Your task to perform on an android device: turn off data saver in the chrome app Image 0: 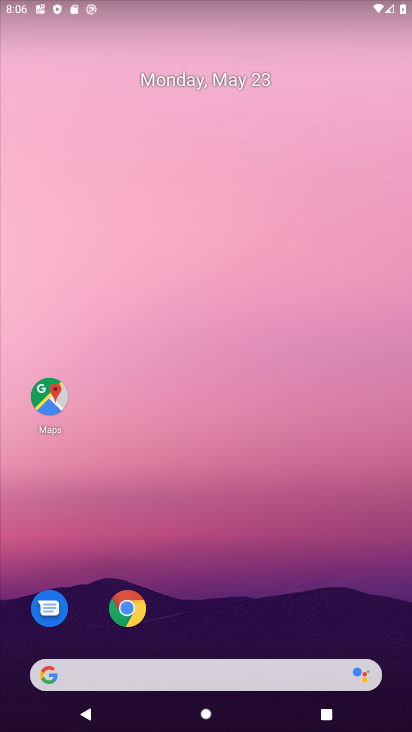
Step 0: click (135, 613)
Your task to perform on an android device: turn off data saver in the chrome app Image 1: 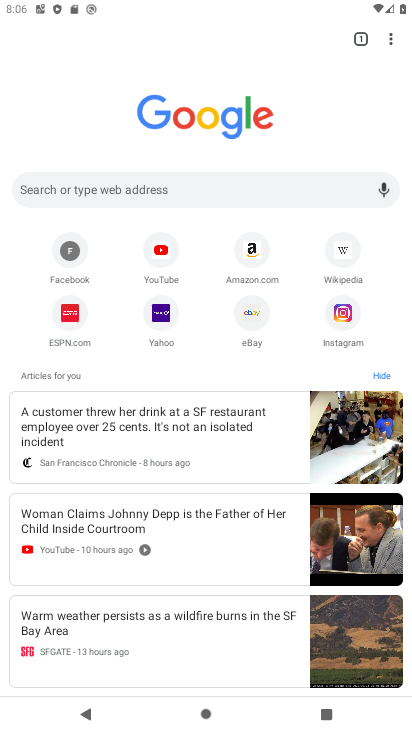
Step 1: drag from (386, 24) to (288, 150)
Your task to perform on an android device: turn off data saver in the chrome app Image 2: 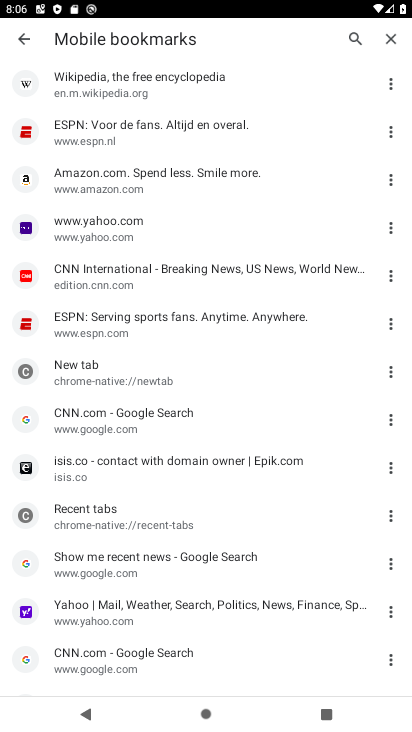
Step 2: click (391, 78)
Your task to perform on an android device: turn off data saver in the chrome app Image 3: 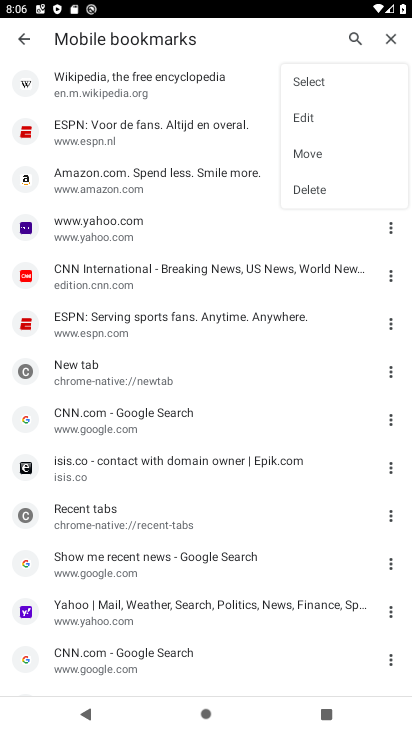
Step 3: click (316, 187)
Your task to perform on an android device: turn off data saver in the chrome app Image 4: 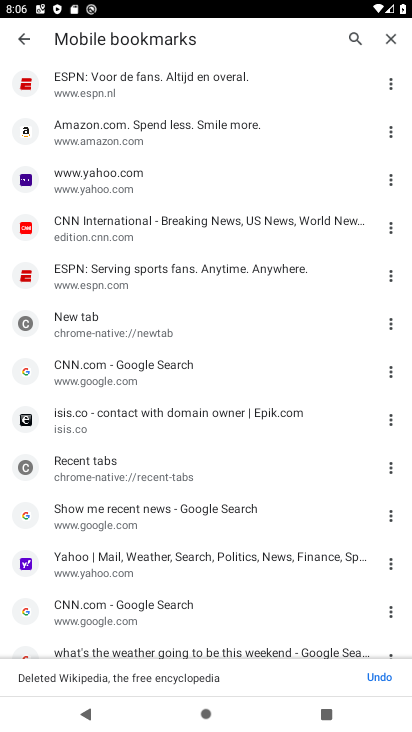
Step 4: task complete